Your task to perform on an android device: Show me the alarms in the clock app Image 0: 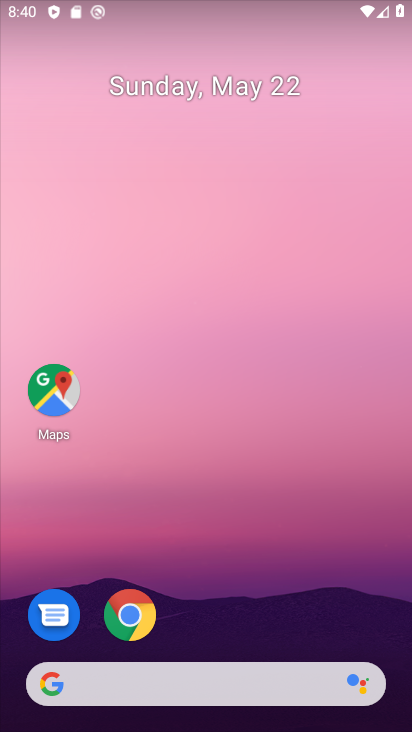
Step 0: drag from (210, 598) to (200, 173)
Your task to perform on an android device: Show me the alarms in the clock app Image 1: 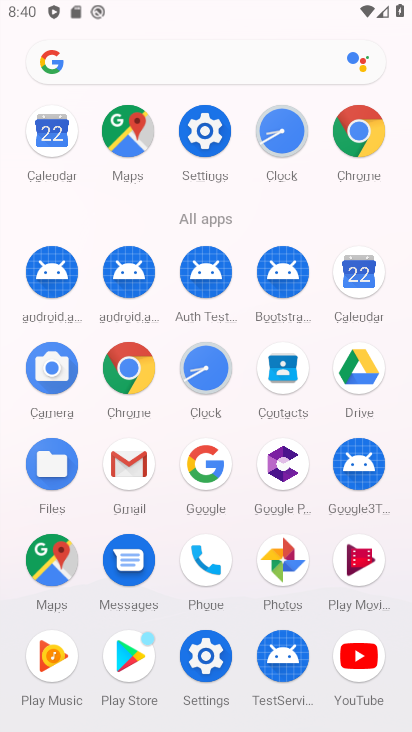
Step 1: click (203, 365)
Your task to perform on an android device: Show me the alarms in the clock app Image 2: 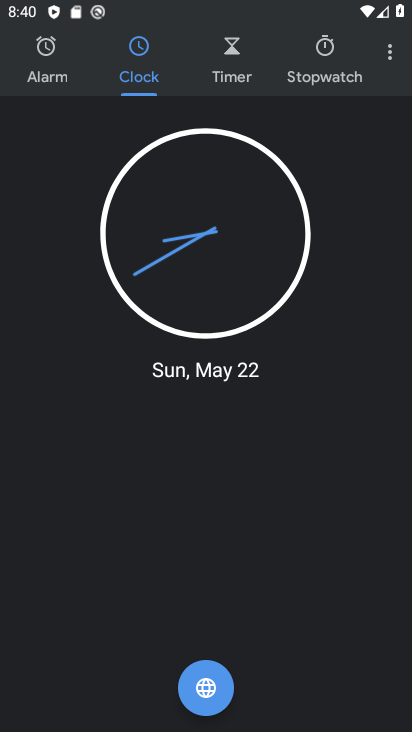
Step 2: click (314, 56)
Your task to perform on an android device: Show me the alarms in the clock app Image 3: 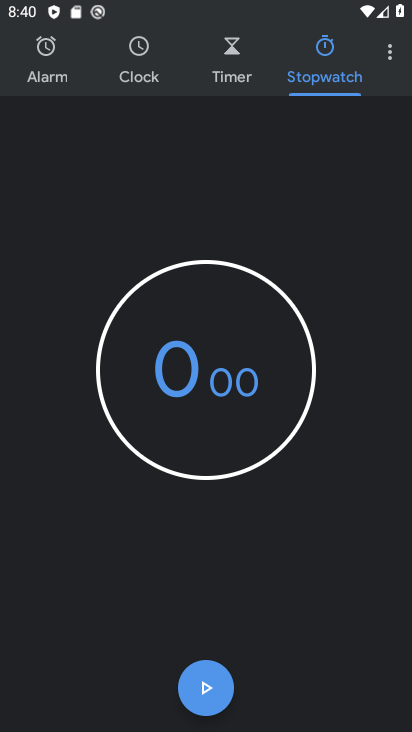
Step 3: click (60, 52)
Your task to perform on an android device: Show me the alarms in the clock app Image 4: 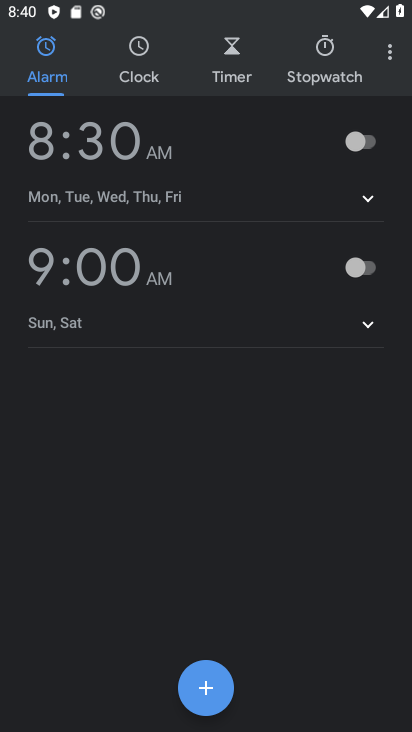
Step 4: task complete